Your task to perform on an android device: Go to display settings Image 0: 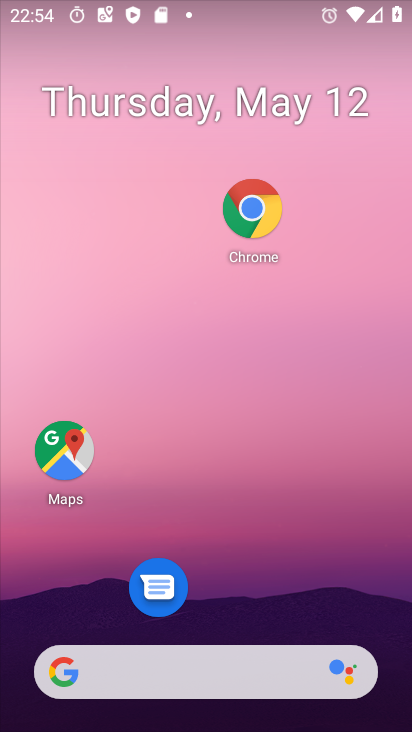
Step 0: drag from (292, 532) to (367, 183)
Your task to perform on an android device: Go to display settings Image 1: 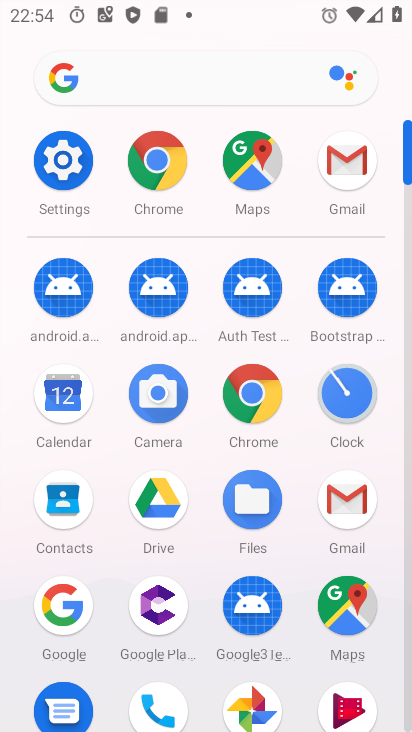
Step 1: click (58, 138)
Your task to perform on an android device: Go to display settings Image 2: 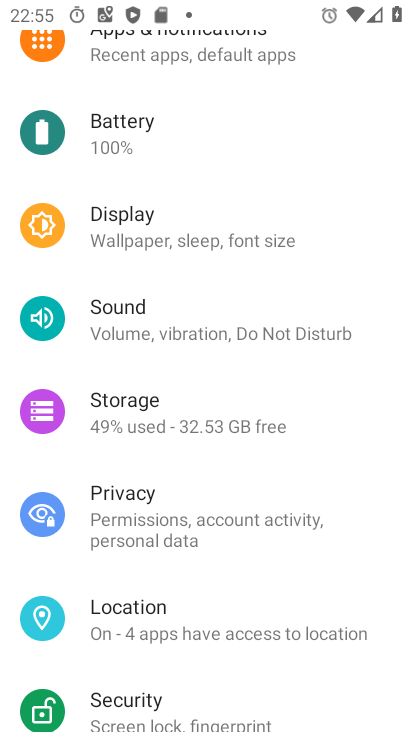
Step 2: click (149, 214)
Your task to perform on an android device: Go to display settings Image 3: 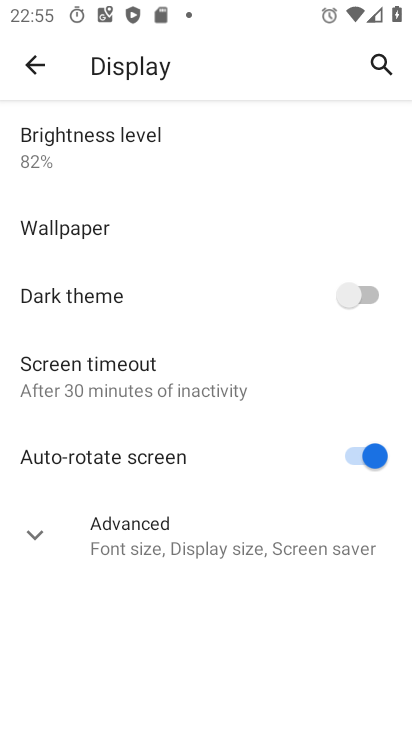
Step 3: task complete